Your task to perform on an android device: Open notification settings Image 0: 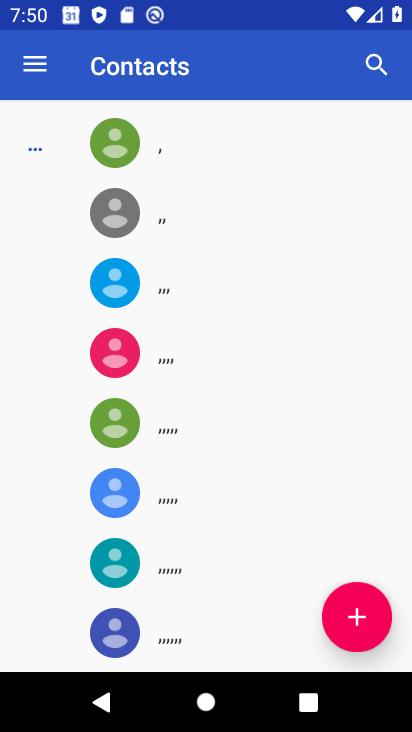
Step 0: press home button
Your task to perform on an android device: Open notification settings Image 1: 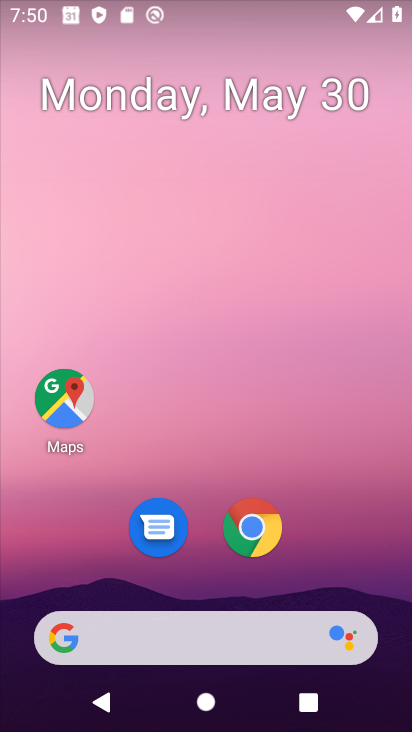
Step 1: drag from (211, 586) to (213, 49)
Your task to perform on an android device: Open notification settings Image 2: 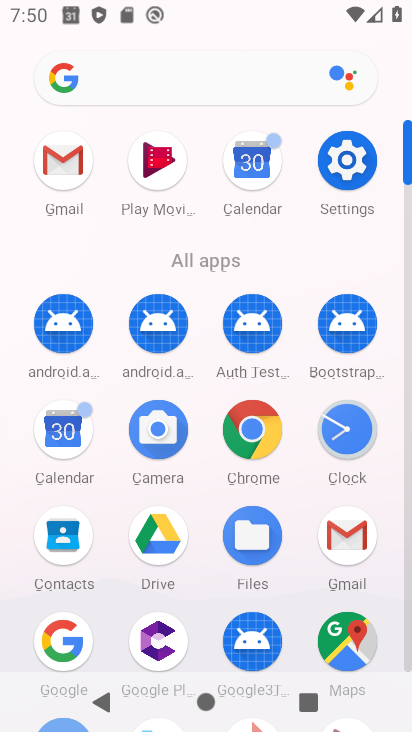
Step 2: click (349, 162)
Your task to perform on an android device: Open notification settings Image 3: 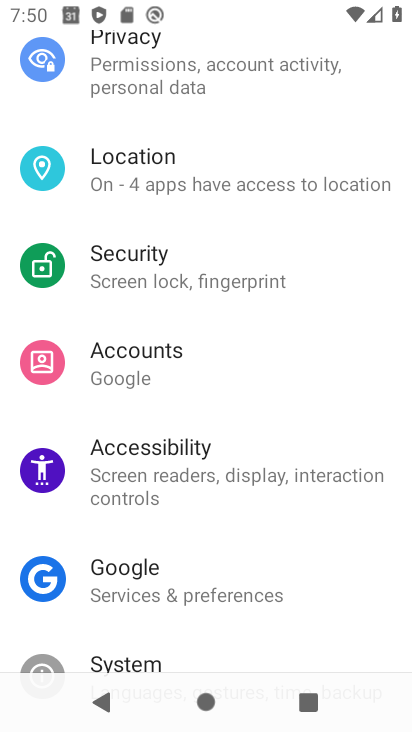
Step 3: drag from (267, 267) to (303, 620)
Your task to perform on an android device: Open notification settings Image 4: 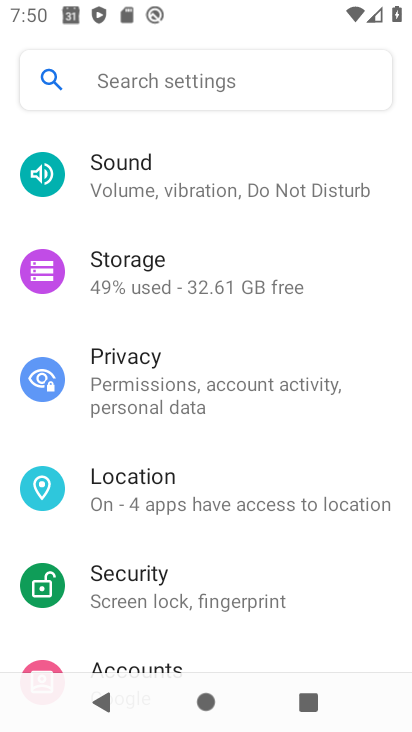
Step 4: drag from (186, 292) to (192, 620)
Your task to perform on an android device: Open notification settings Image 5: 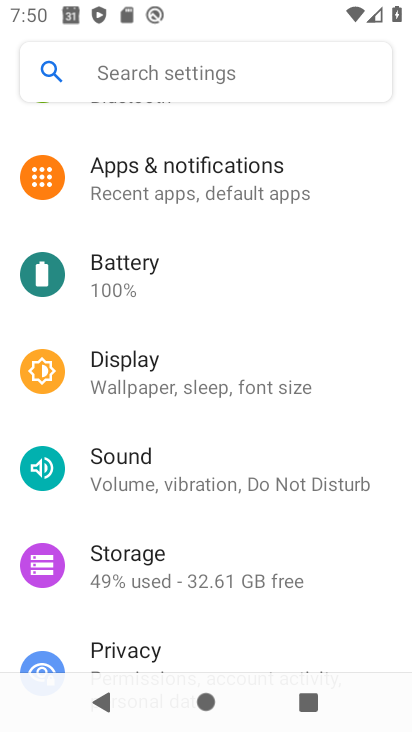
Step 5: click (169, 171)
Your task to perform on an android device: Open notification settings Image 6: 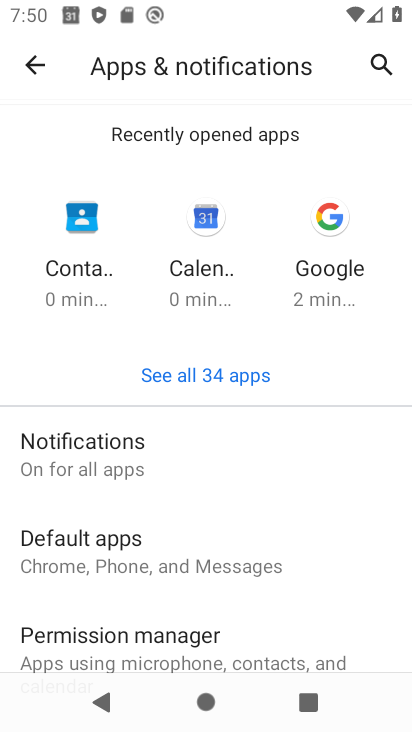
Step 6: click (141, 441)
Your task to perform on an android device: Open notification settings Image 7: 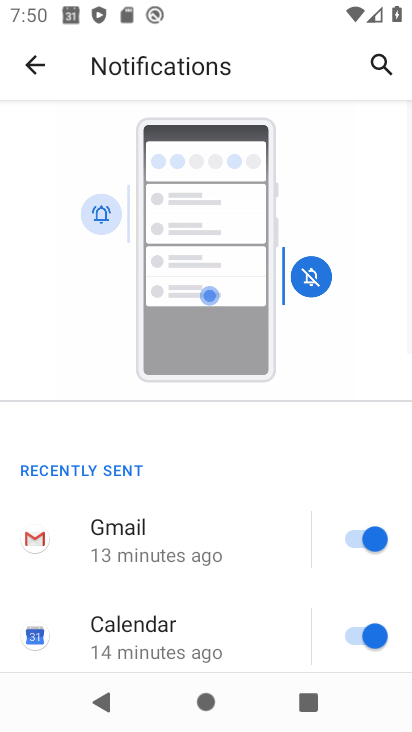
Step 7: task complete